Your task to perform on an android device: turn on location history Image 0: 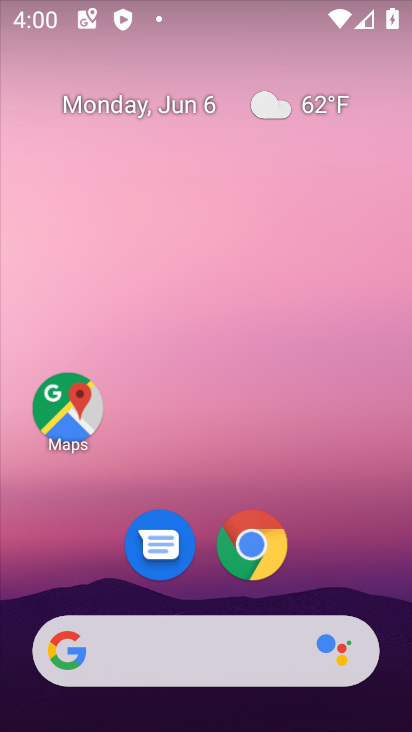
Step 0: drag from (224, 714) to (212, 1)
Your task to perform on an android device: turn on location history Image 1: 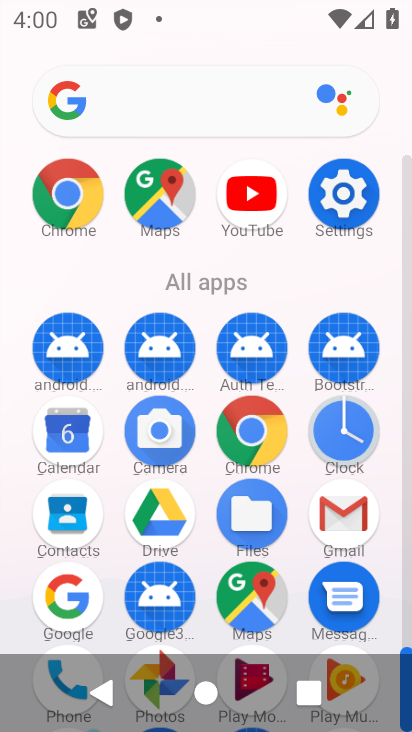
Step 1: click (351, 187)
Your task to perform on an android device: turn on location history Image 2: 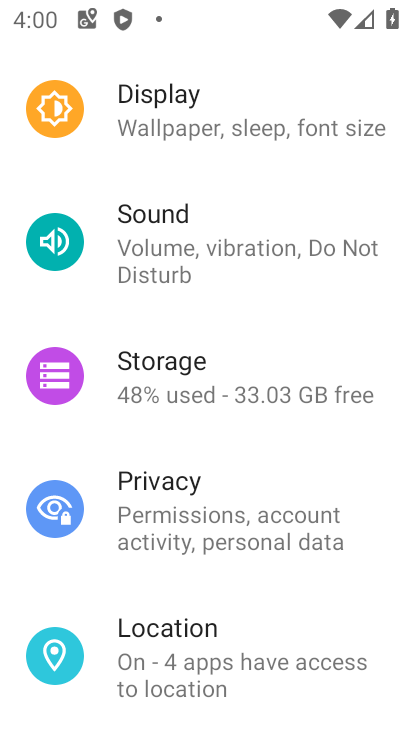
Step 2: click (164, 647)
Your task to perform on an android device: turn on location history Image 3: 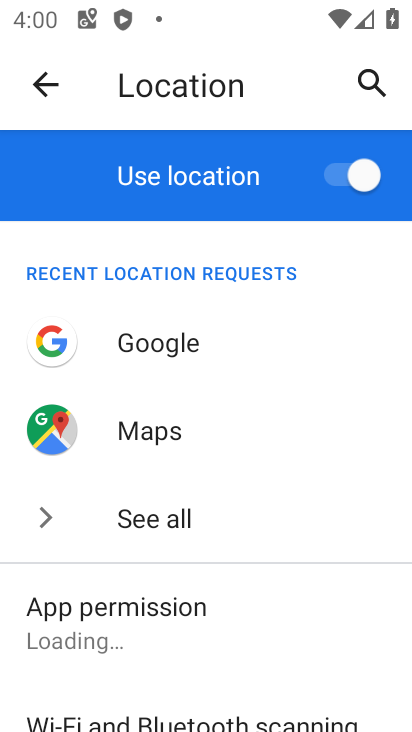
Step 3: drag from (205, 696) to (201, 272)
Your task to perform on an android device: turn on location history Image 4: 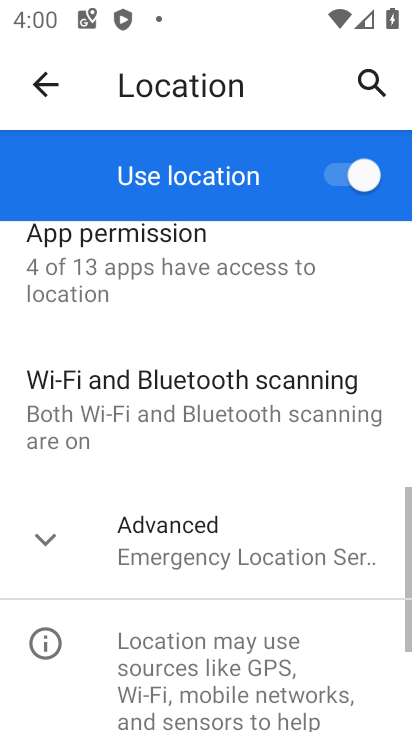
Step 4: click (174, 532)
Your task to perform on an android device: turn on location history Image 5: 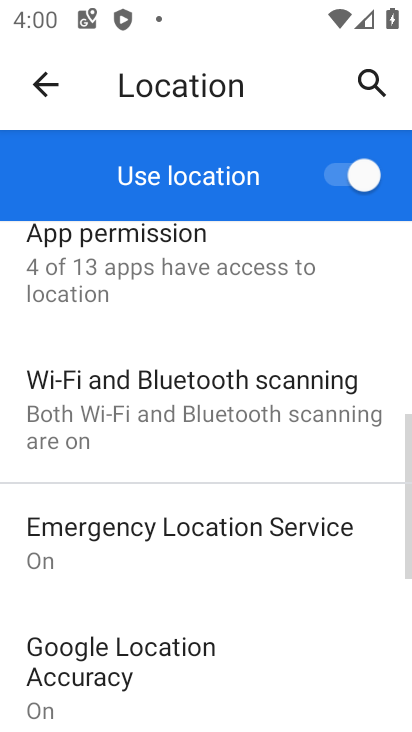
Step 5: drag from (205, 700) to (199, 313)
Your task to perform on an android device: turn on location history Image 6: 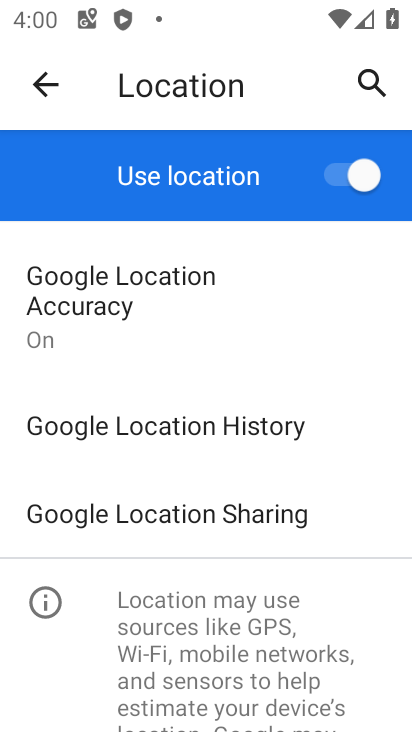
Step 6: click (173, 428)
Your task to perform on an android device: turn on location history Image 7: 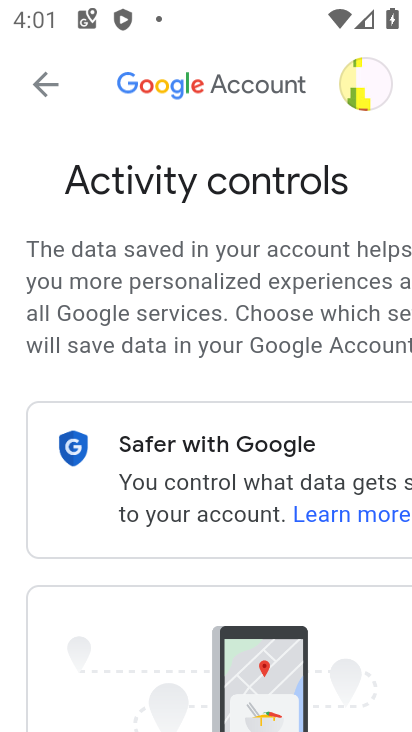
Step 7: task complete